Your task to perform on an android device: open device folders in google photos Image 0: 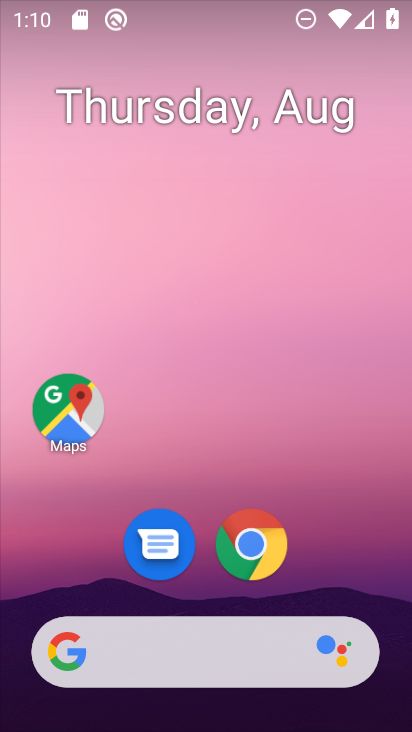
Step 0: drag from (202, 585) to (187, 82)
Your task to perform on an android device: open device folders in google photos Image 1: 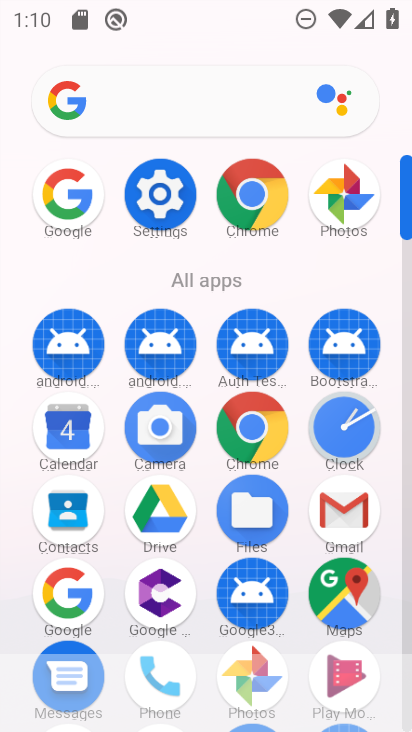
Step 1: click (270, 687)
Your task to perform on an android device: open device folders in google photos Image 2: 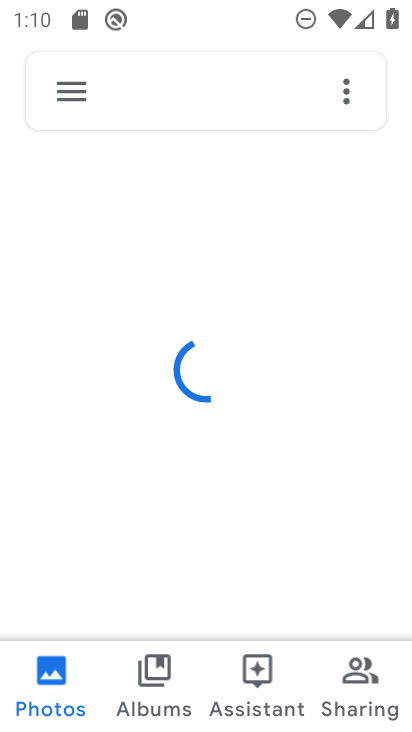
Step 2: click (47, 93)
Your task to perform on an android device: open device folders in google photos Image 3: 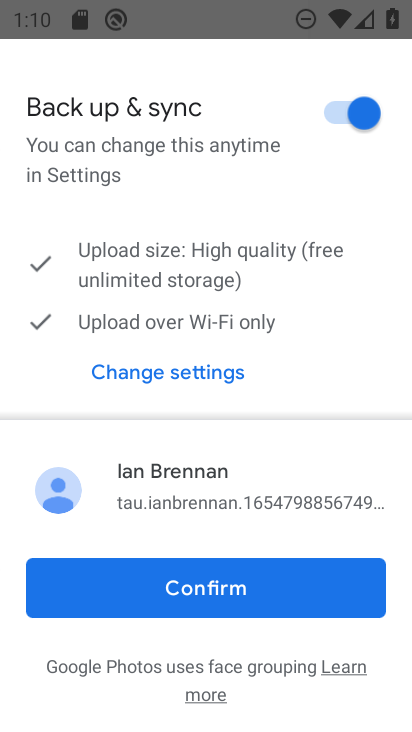
Step 3: click (204, 572)
Your task to perform on an android device: open device folders in google photos Image 4: 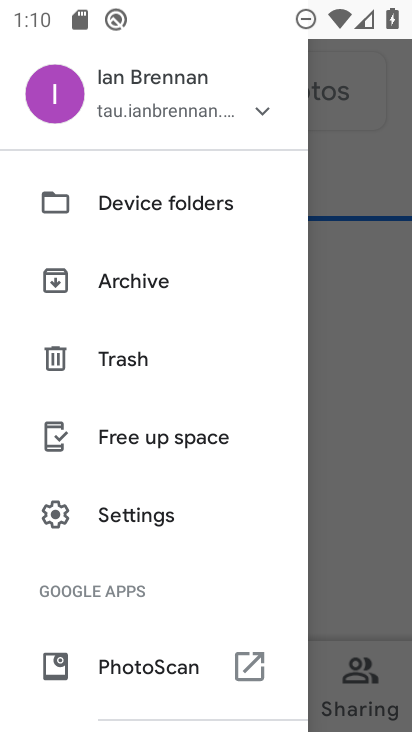
Step 4: click (129, 217)
Your task to perform on an android device: open device folders in google photos Image 5: 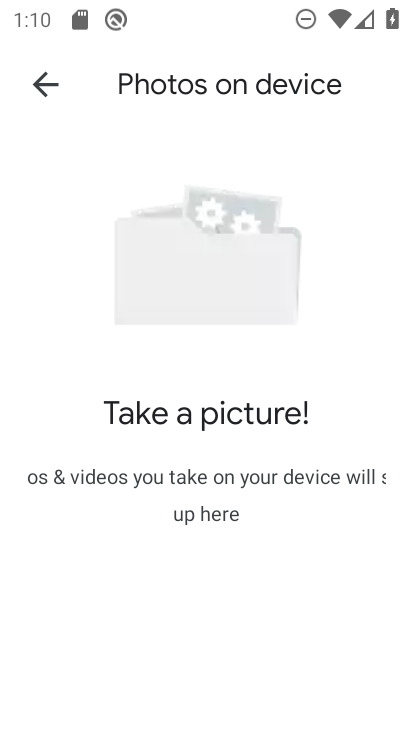
Step 5: task complete